Your task to perform on an android device: change the upload size in google photos Image 0: 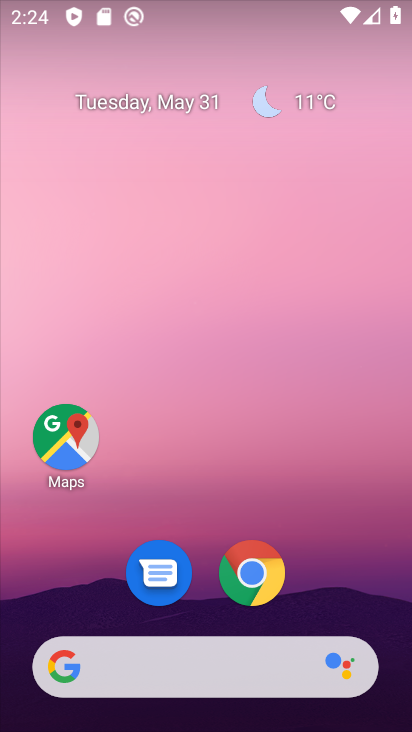
Step 0: drag from (346, 559) to (224, 61)
Your task to perform on an android device: change the upload size in google photos Image 1: 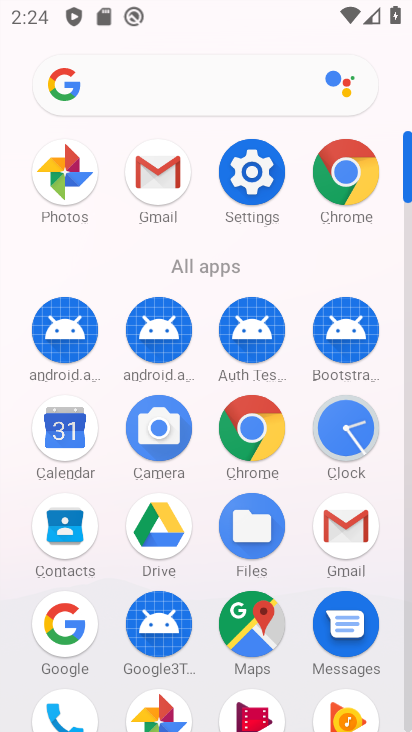
Step 1: click (167, 708)
Your task to perform on an android device: change the upload size in google photos Image 2: 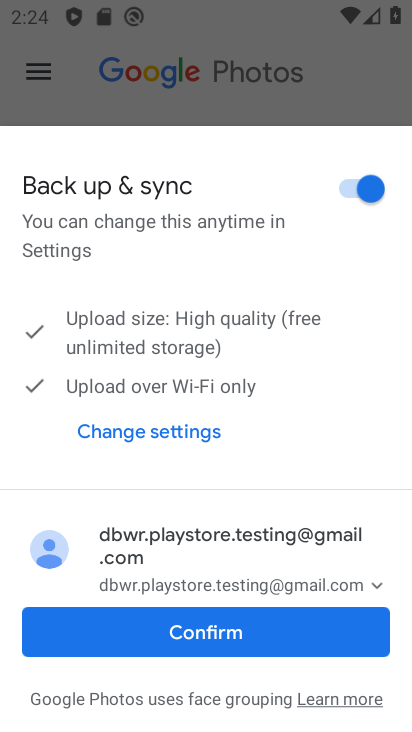
Step 2: click (235, 628)
Your task to perform on an android device: change the upload size in google photos Image 3: 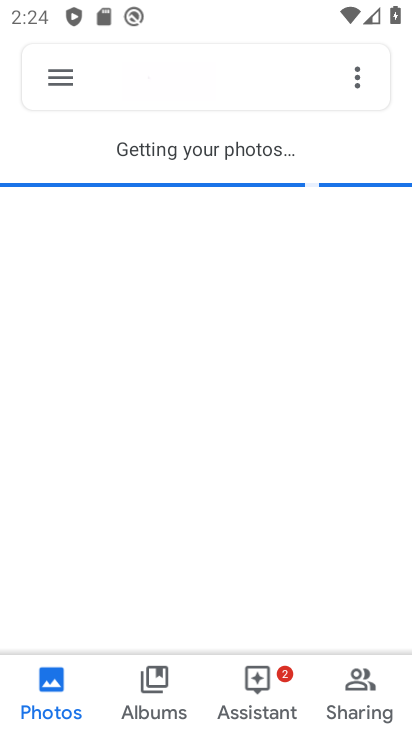
Step 3: click (57, 89)
Your task to perform on an android device: change the upload size in google photos Image 4: 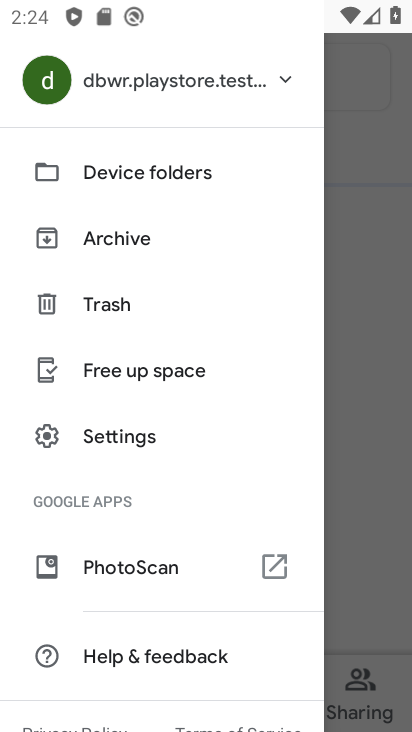
Step 4: click (149, 452)
Your task to perform on an android device: change the upload size in google photos Image 5: 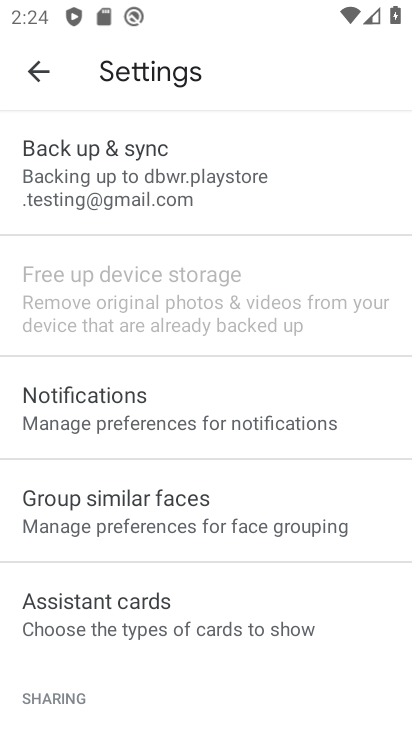
Step 5: click (200, 191)
Your task to perform on an android device: change the upload size in google photos Image 6: 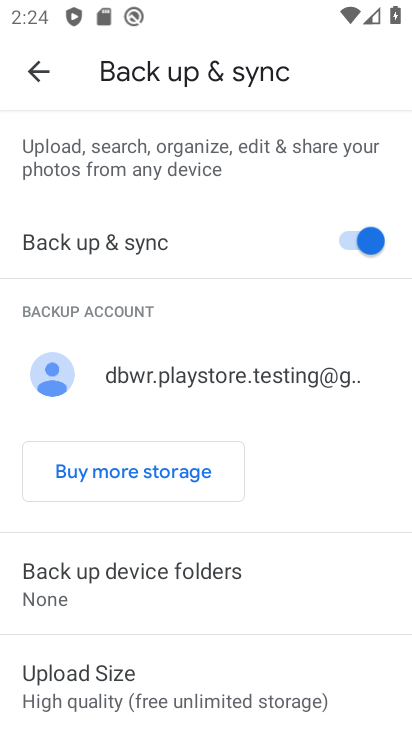
Step 6: drag from (227, 523) to (173, 214)
Your task to perform on an android device: change the upload size in google photos Image 7: 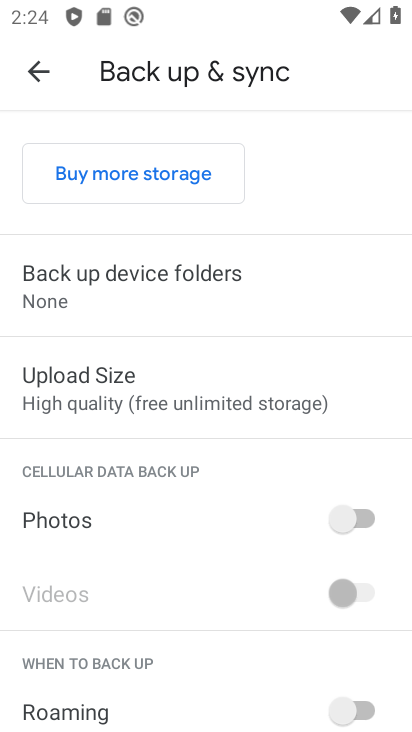
Step 7: click (175, 405)
Your task to perform on an android device: change the upload size in google photos Image 8: 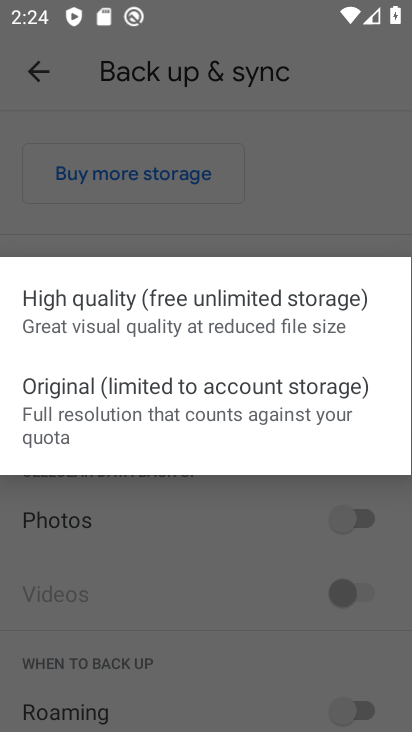
Step 8: click (175, 405)
Your task to perform on an android device: change the upload size in google photos Image 9: 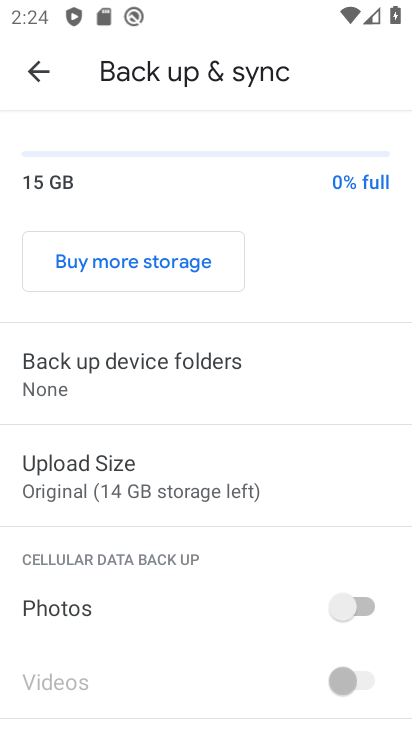
Step 9: task complete